Your task to perform on an android device: Is it going to rain today? Image 0: 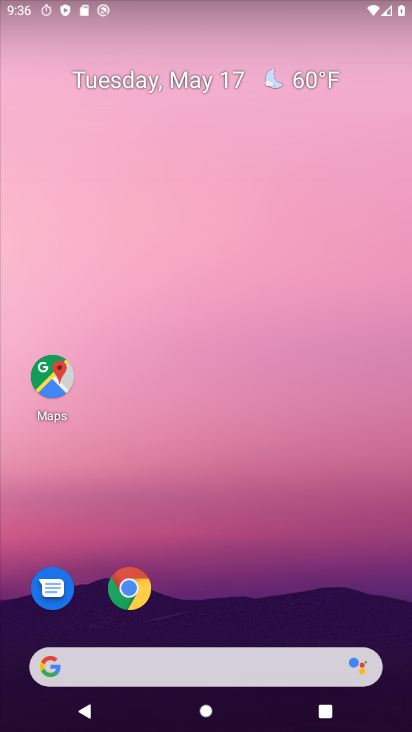
Step 0: drag from (9, 208) to (407, 388)
Your task to perform on an android device: Is it going to rain today? Image 1: 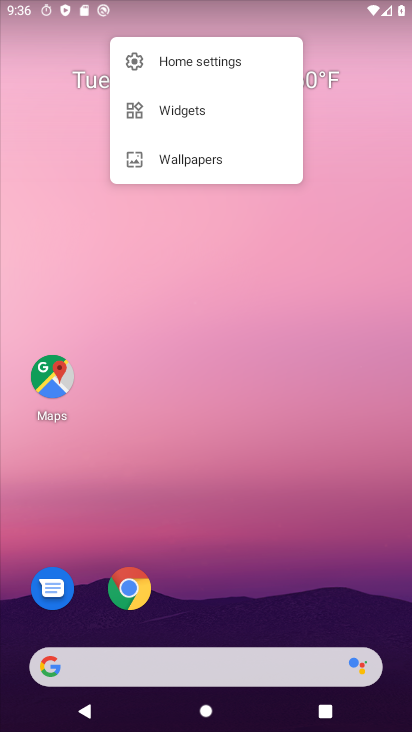
Step 1: drag from (99, 218) to (390, 422)
Your task to perform on an android device: Is it going to rain today? Image 2: 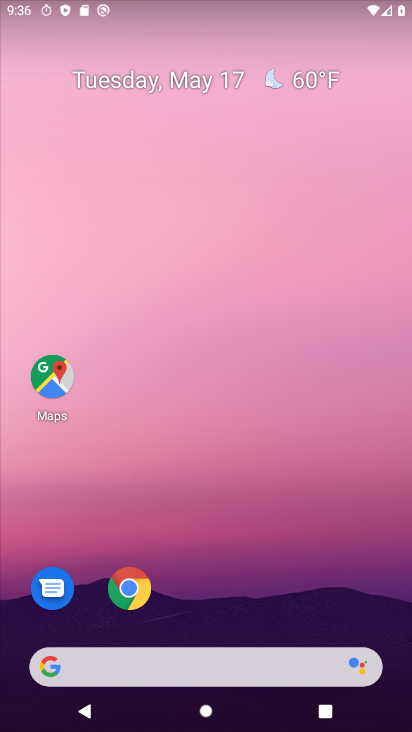
Step 2: drag from (12, 211) to (379, 350)
Your task to perform on an android device: Is it going to rain today? Image 3: 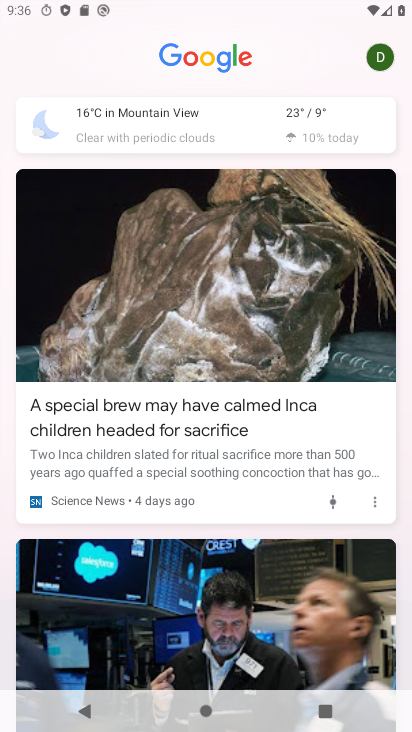
Step 3: click (166, 134)
Your task to perform on an android device: Is it going to rain today? Image 4: 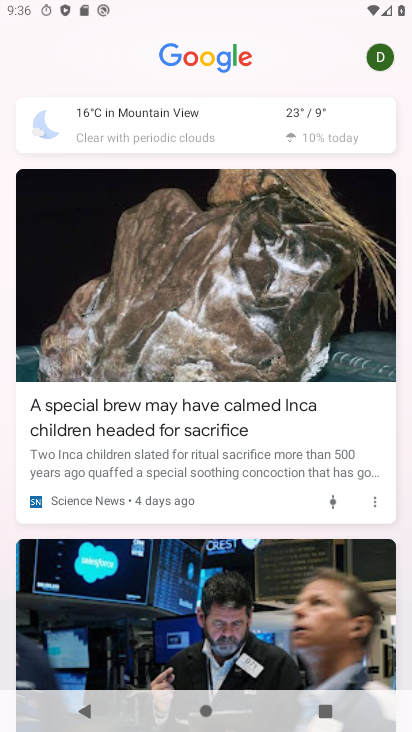
Step 4: click (166, 134)
Your task to perform on an android device: Is it going to rain today? Image 5: 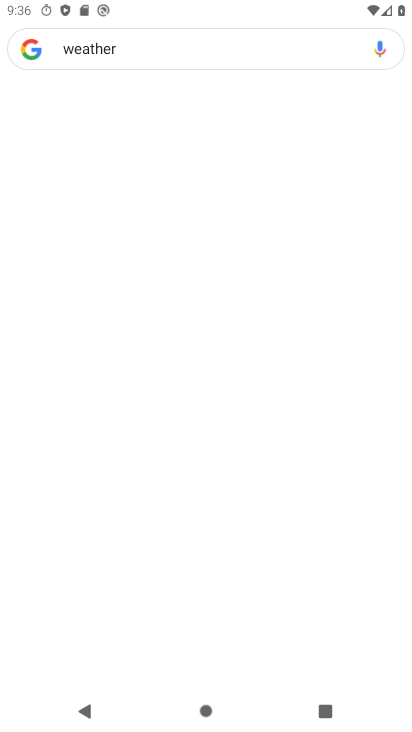
Step 5: click (166, 134)
Your task to perform on an android device: Is it going to rain today? Image 6: 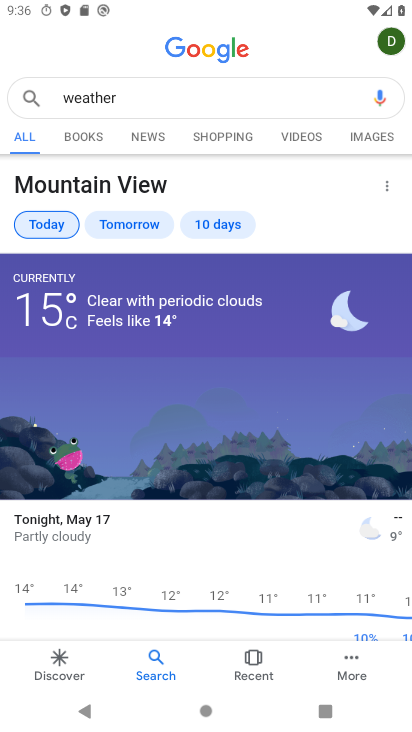
Step 6: drag from (159, 461) to (135, 164)
Your task to perform on an android device: Is it going to rain today? Image 7: 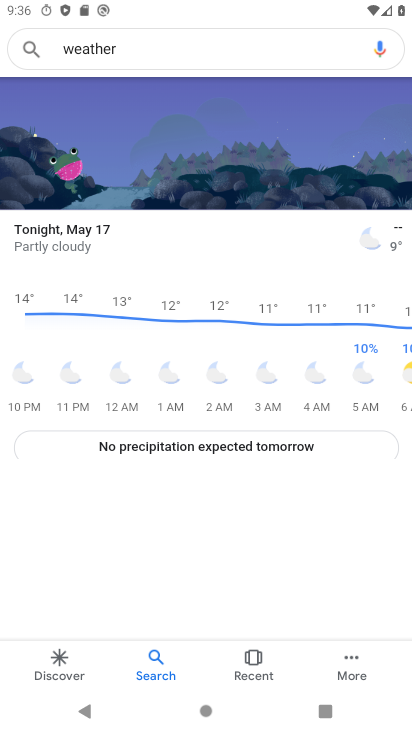
Step 7: click (187, 217)
Your task to perform on an android device: Is it going to rain today? Image 8: 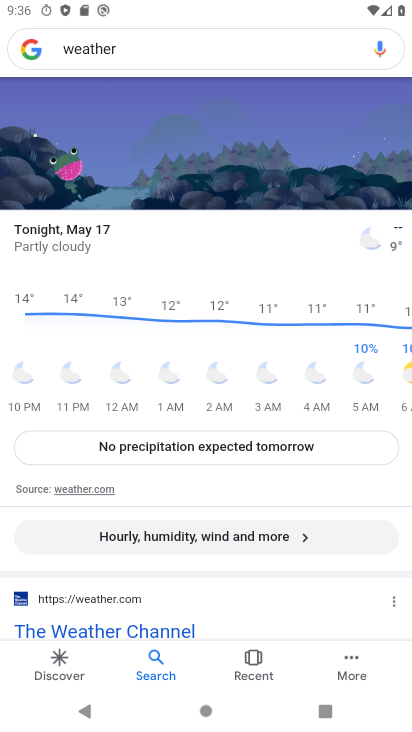
Step 8: task complete